Your task to perform on an android device: Search for Mexican restaurants on Maps Image 0: 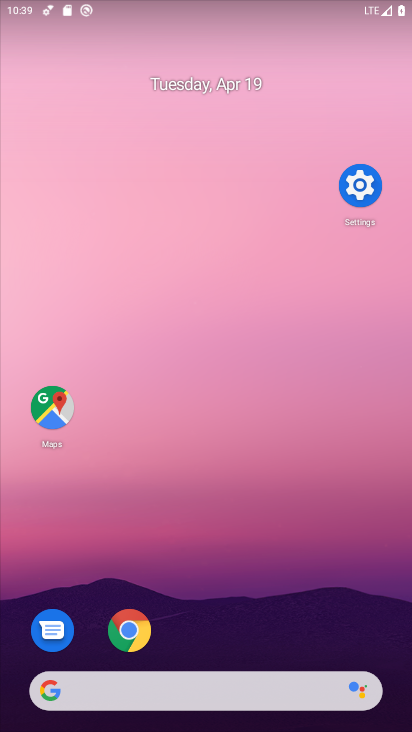
Step 0: drag from (260, 537) to (327, 198)
Your task to perform on an android device: Search for Mexican restaurants on Maps Image 1: 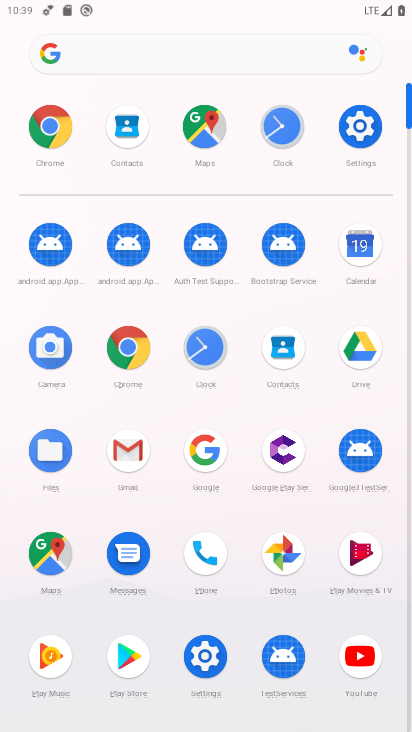
Step 1: click (57, 576)
Your task to perform on an android device: Search for Mexican restaurants on Maps Image 2: 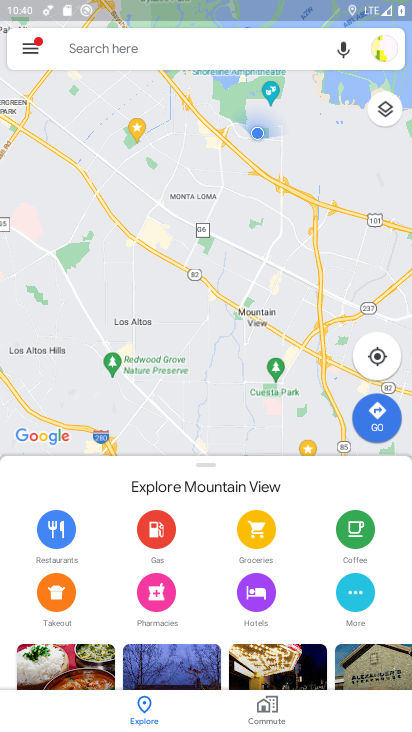
Step 2: click (267, 44)
Your task to perform on an android device: Search for Mexican restaurants on Maps Image 3: 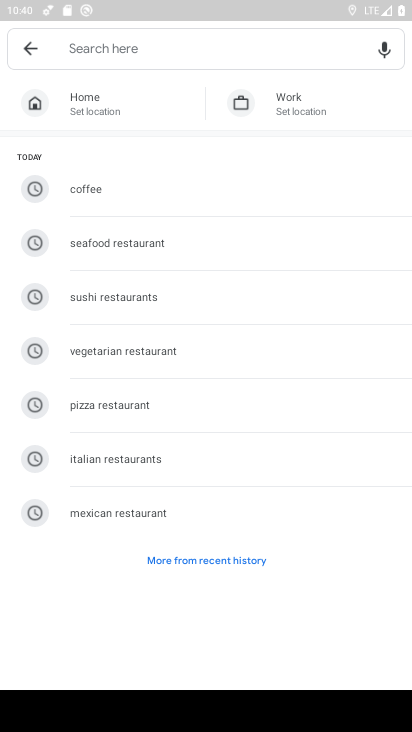
Step 3: click (167, 520)
Your task to perform on an android device: Search for Mexican restaurants on Maps Image 4: 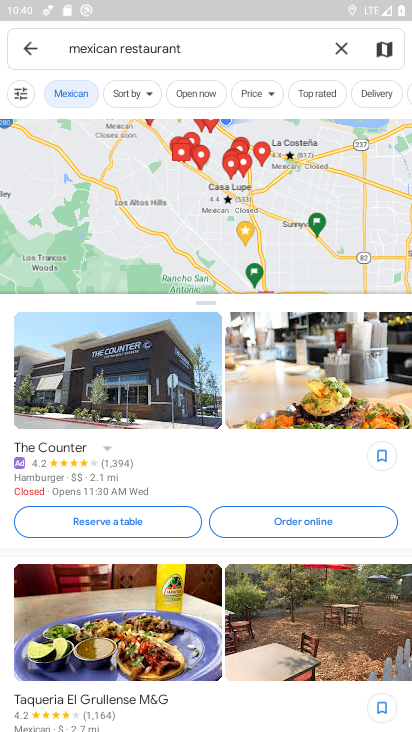
Step 4: task complete